Your task to perform on an android device: turn off notifications in google photos Image 0: 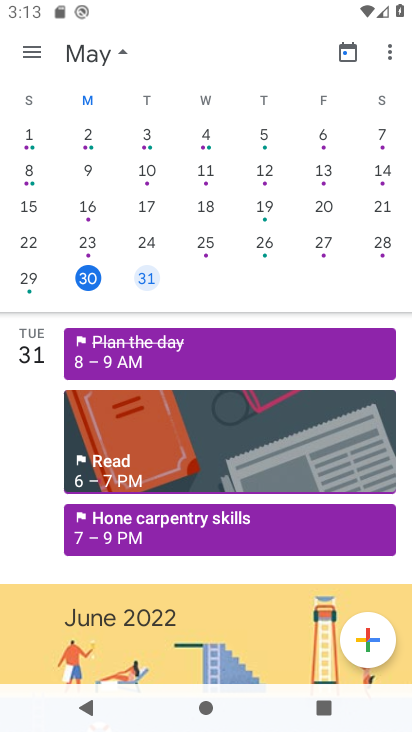
Step 0: press home button
Your task to perform on an android device: turn off notifications in google photos Image 1: 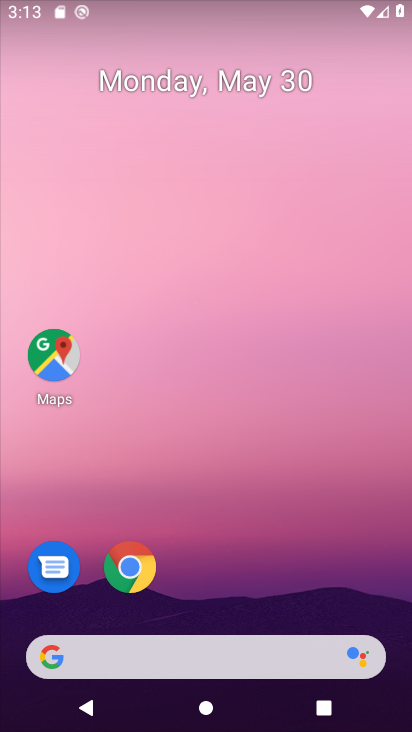
Step 1: drag from (254, 617) to (250, 5)
Your task to perform on an android device: turn off notifications in google photos Image 2: 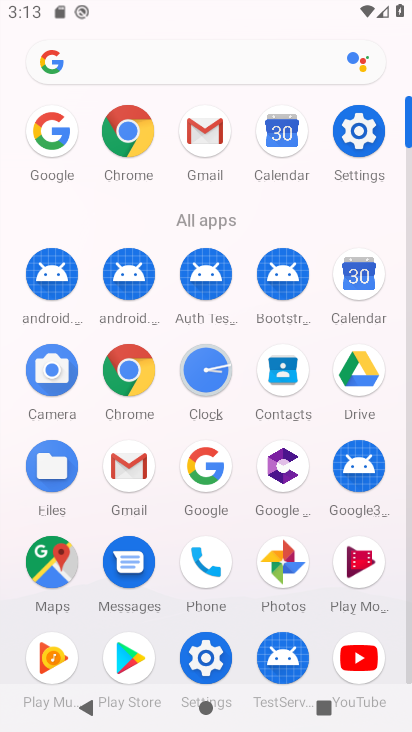
Step 2: click (284, 571)
Your task to perform on an android device: turn off notifications in google photos Image 3: 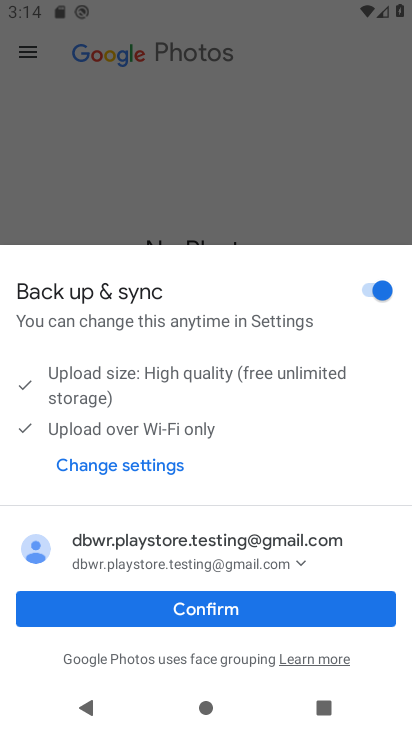
Step 3: click (193, 603)
Your task to perform on an android device: turn off notifications in google photos Image 4: 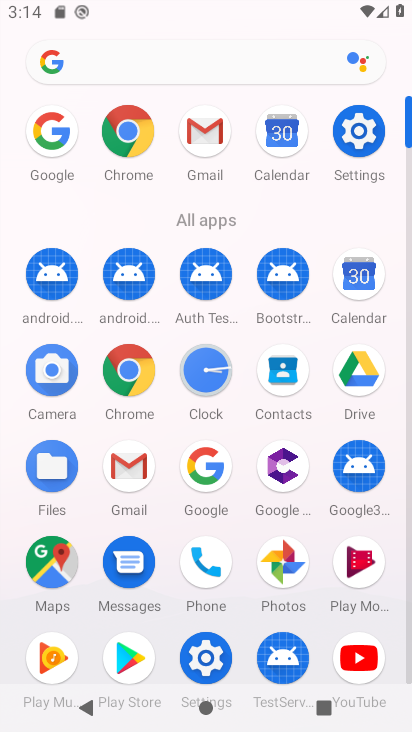
Step 4: click (290, 561)
Your task to perform on an android device: turn off notifications in google photos Image 5: 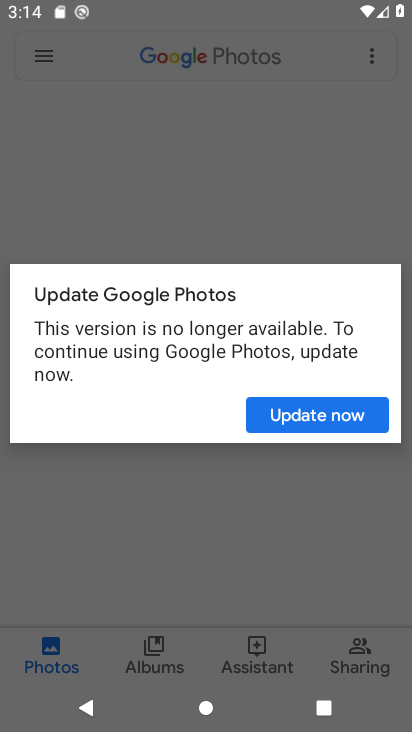
Step 5: click (38, 62)
Your task to perform on an android device: turn off notifications in google photos Image 6: 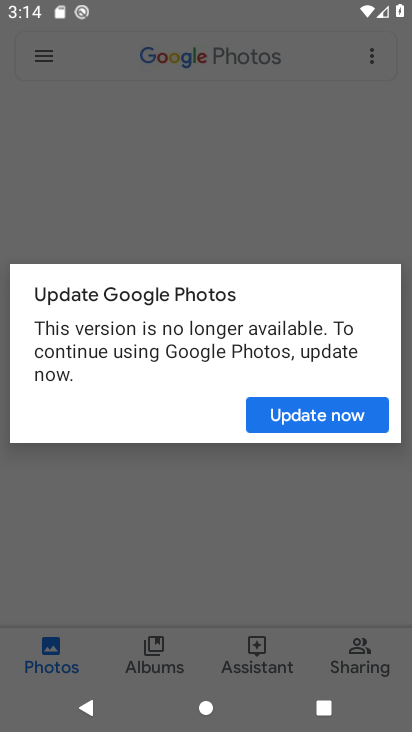
Step 6: click (291, 420)
Your task to perform on an android device: turn off notifications in google photos Image 7: 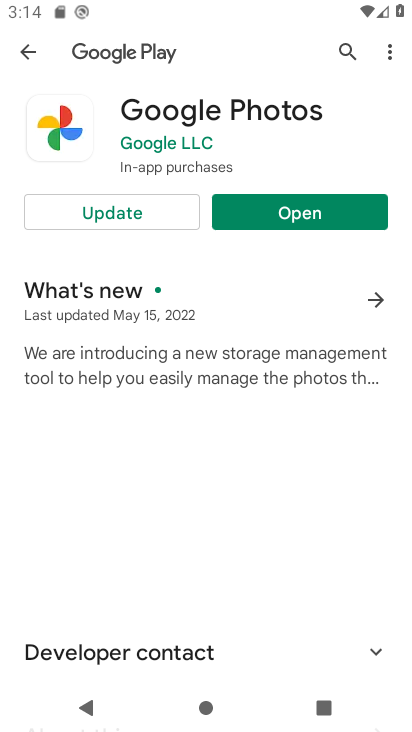
Step 7: click (114, 219)
Your task to perform on an android device: turn off notifications in google photos Image 8: 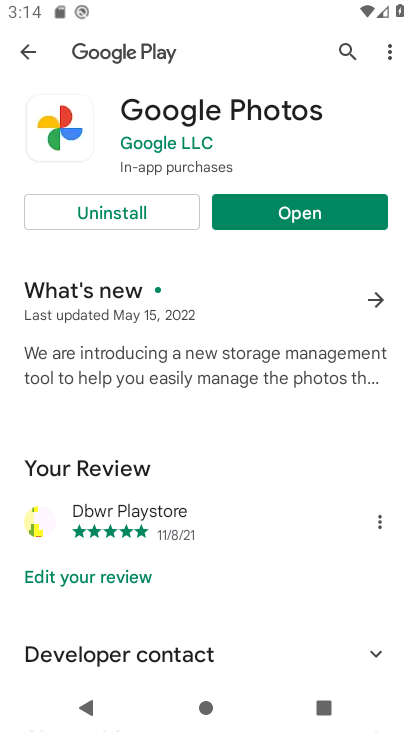
Step 8: click (303, 200)
Your task to perform on an android device: turn off notifications in google photos Image 9: 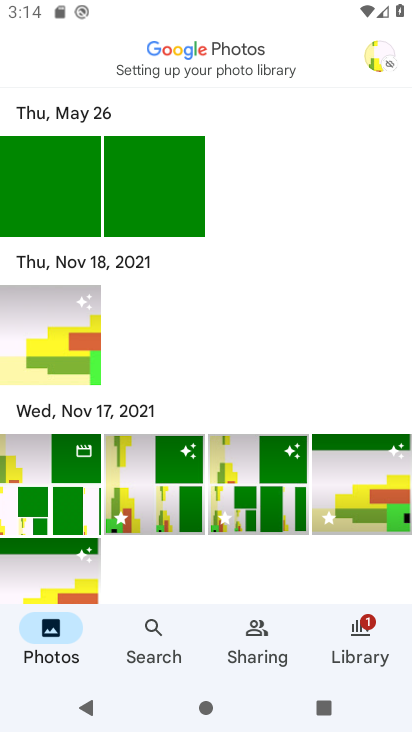
Step 9: click (389, 57)
Your task to perform on an android device: turn off notifications in google photos Image 10: 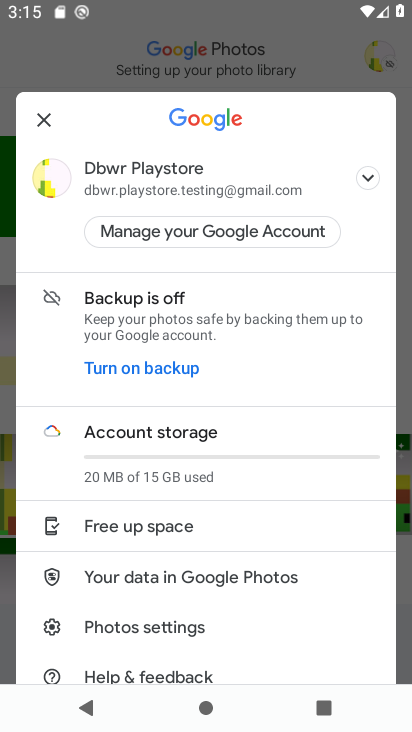
Step 10: click (180, 624)
Your task to perform on an android device: turn off notifications in google photos Image 11: 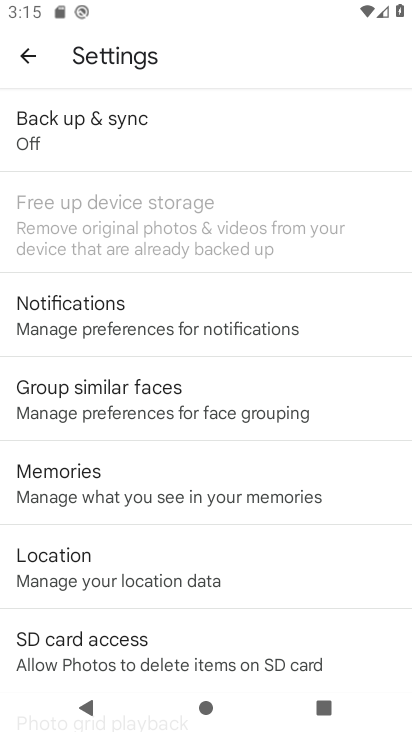
Step 11: click (69, 320)
Your task to perform on an android device: turn off notifications in google photos Image 12: 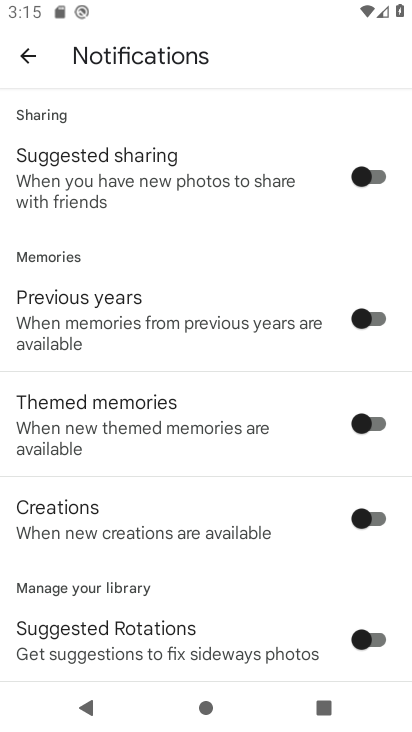
Step 12: drag from (139, 620) to (160, 43)
Your task to perform on an android device: turn off notifications in google photos Image 13: 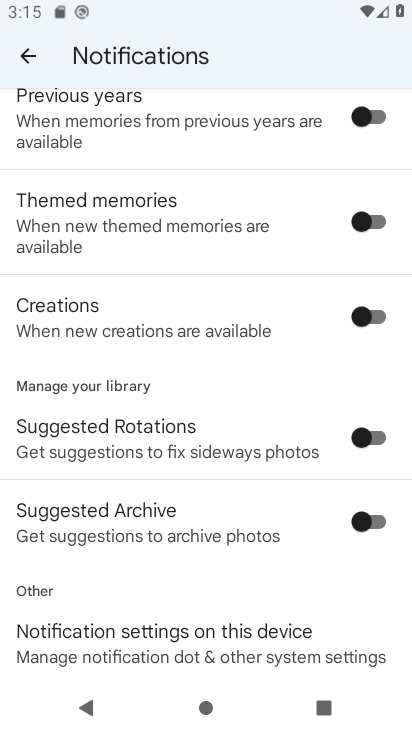
Step 13: click (158, 638)
Your task to perform on an android device: turn off notifications in google photos Image 14: 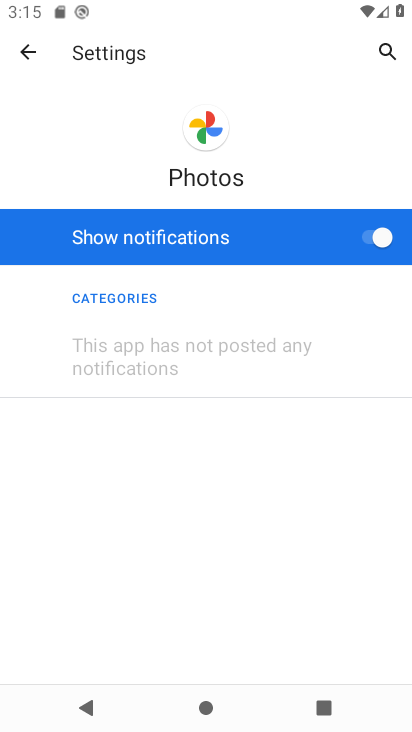
Step 14: click (370, 219)
Your task to perform on an android device: turn off notifications in google photos Image 15: 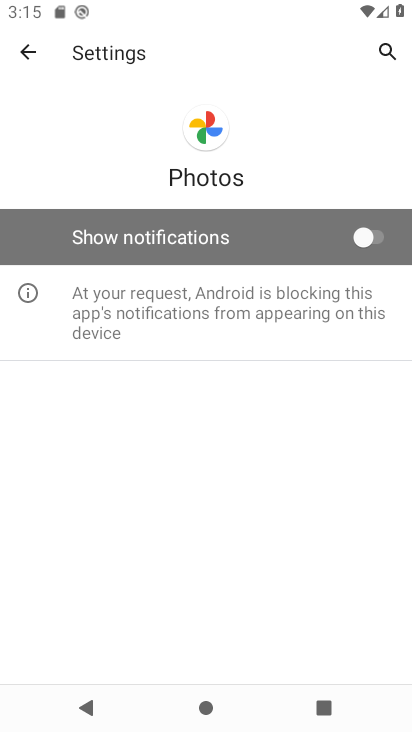
Step 15: task complete